Your task to perform on an android device: Open location settings Image 0: 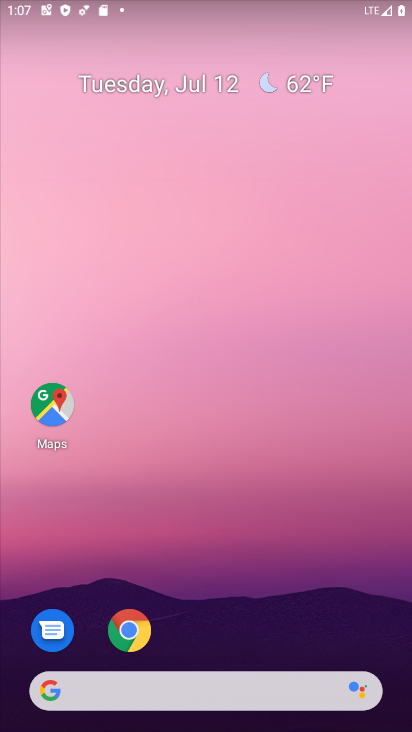
Step 0: drag from (198, 641) to (248, 160)
Your task to perform on an android device: Open location settings Image 1: 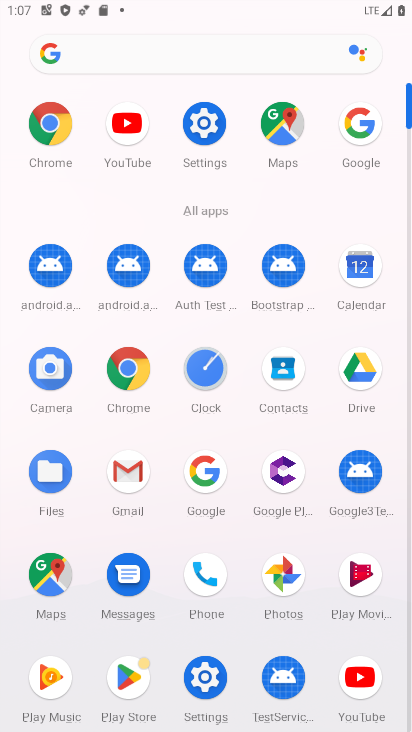
Step 1: click (201, 122)
Your task to perform on an android device: Open location settings Image 2: 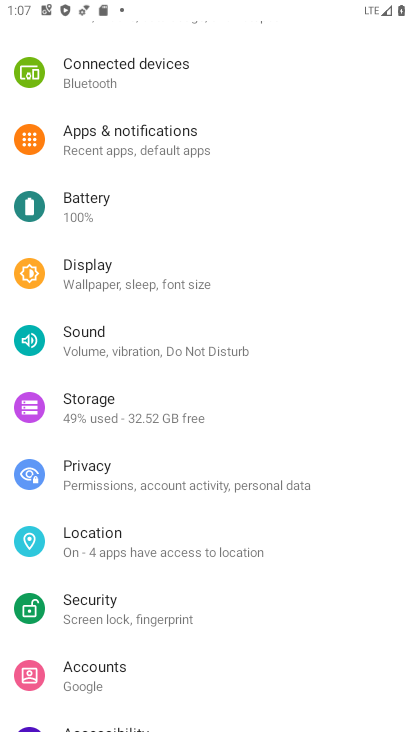
Step 2: click (131, 539)
Your task to perform on an android device: Open location settings Image 3: 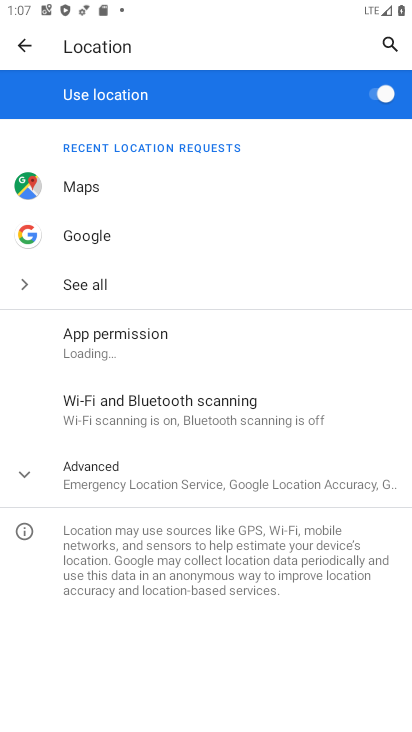
Step 3: task complete